Your task to perform on an android device: Go to Yahoo.com Image 0: 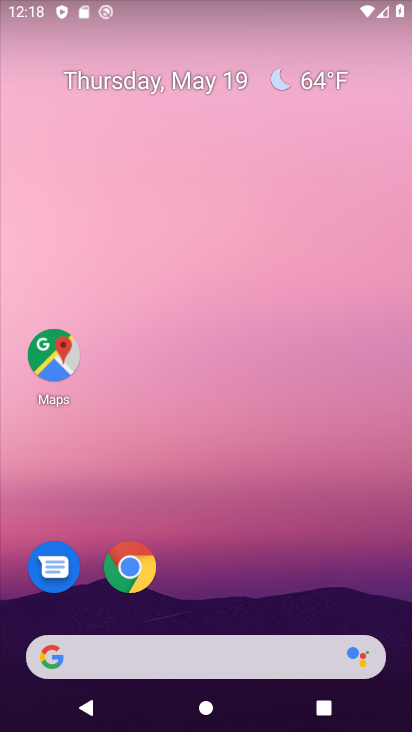
Step 0: click (135, 563)
Your task to perform on an android device: Go to Yahoo.com Image 1: 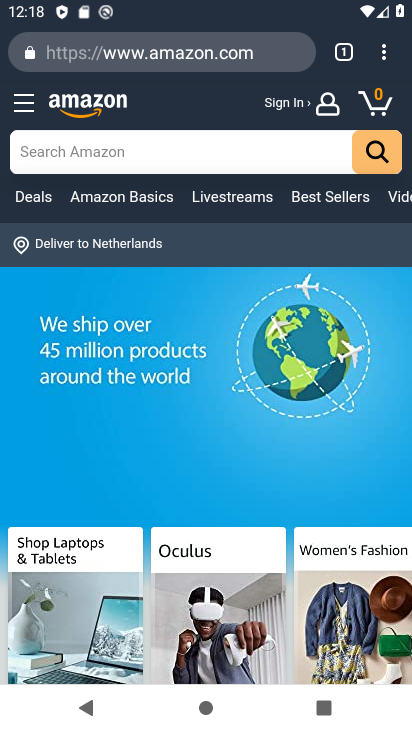
Step 1: click (217, 55)
Your task to perform on an android device: Go to Yahoo.com Image 2: 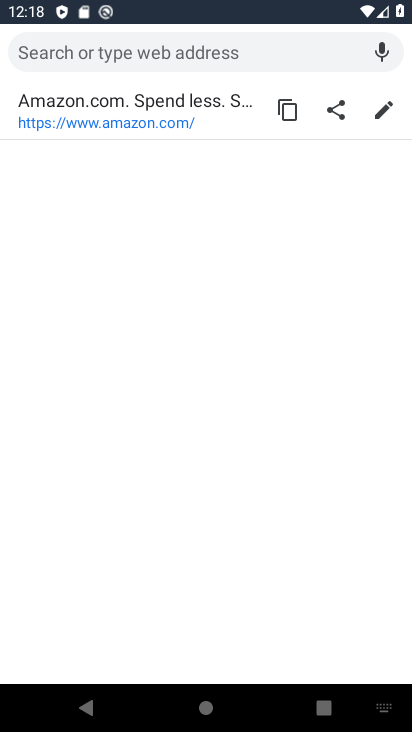
Step 2: type "yahoo.com"
Your task to perform on an android device: Go to Yahoo.com Image 3: 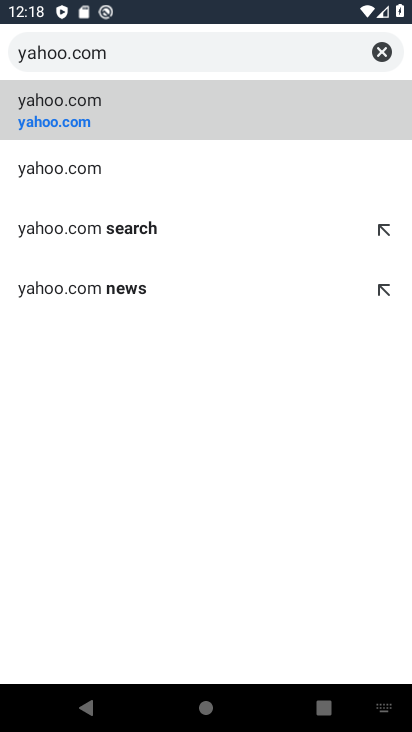
Step 3: click (73, 112)
Your task to perform on an android device: Go to Yahoo.com Image 4: 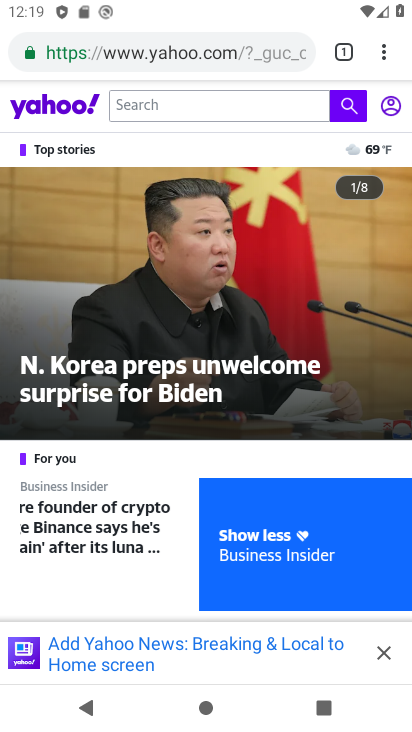
Step 4: task complete